Your task to perform on an android device: clear history in the chrome app Image 0: 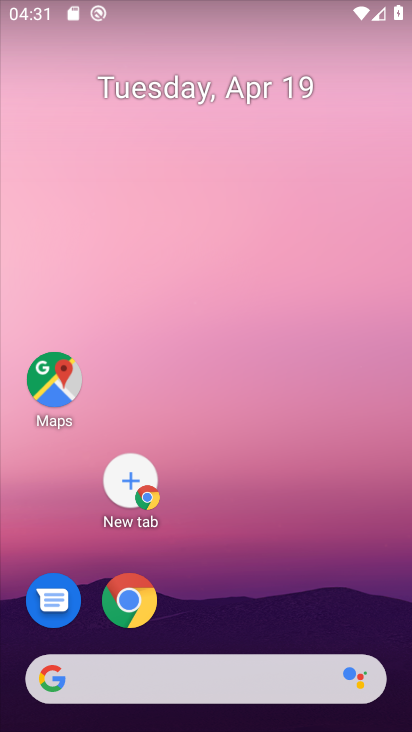
Step 0: click (135, 606)
Your task to perform on an android device: clear history in the chrome app Image 1: 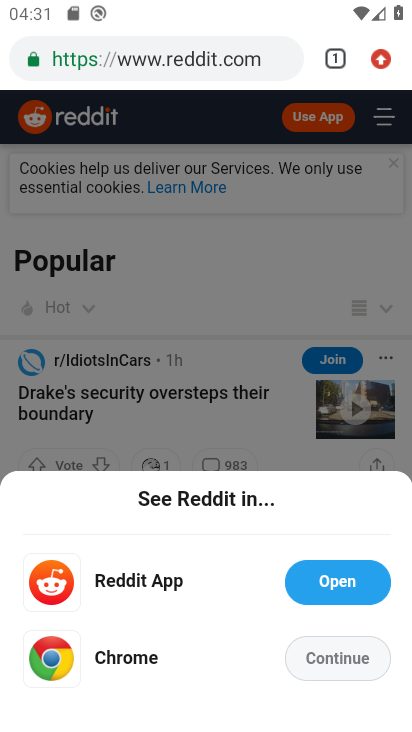
Step 1: click (393, 62)
Your task to perform on an android device: clear history in the chrome app Image 2: 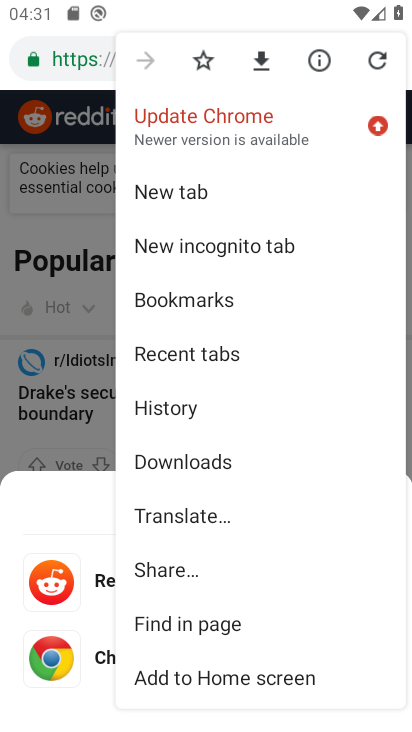
Step 2: click (194, 406)
Your task to perform on an android device: clear history in the chrome app Image 3: 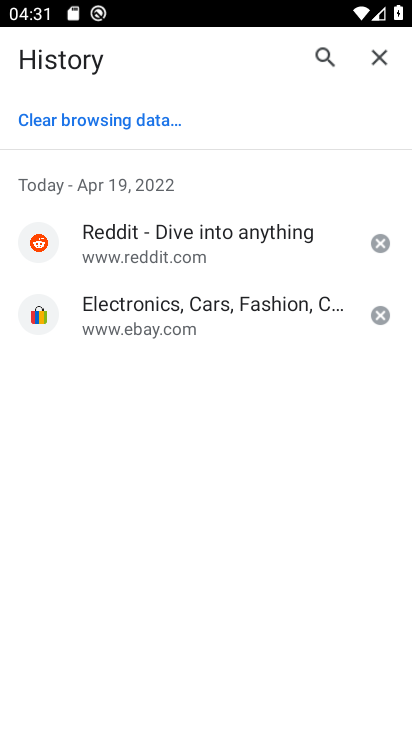
Step 3: click (89, 127)
Your task to perform on an android device: clear history in the chrome app Image 4: 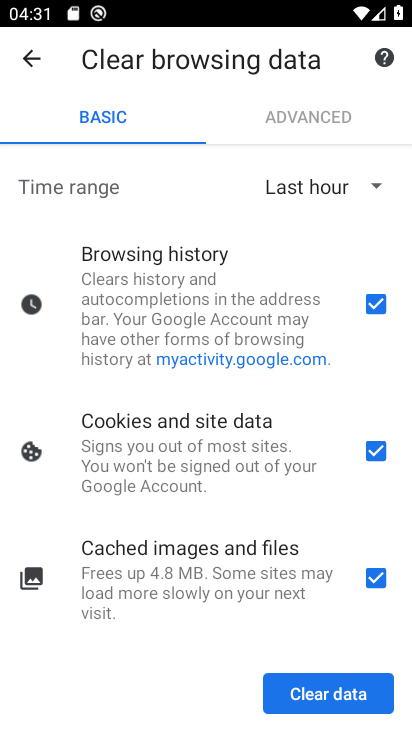
Step 4: click (306, 702)
Your task to perform on an android device: clear history in the chrome app Image 5: 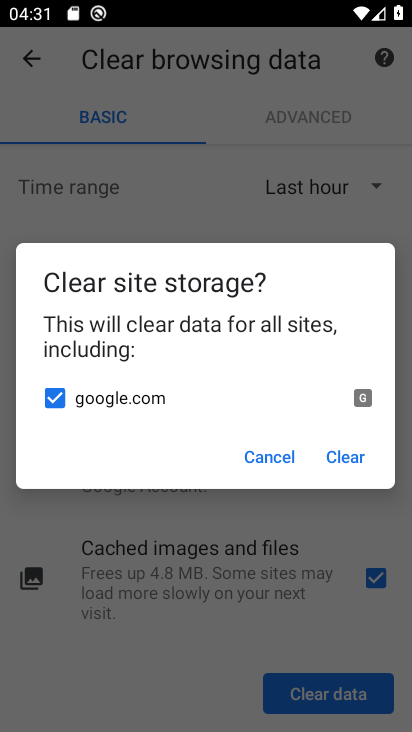
Step 5: click (344, 452)
Your task to perform on an android device: clear history in the chrome app Image 6: 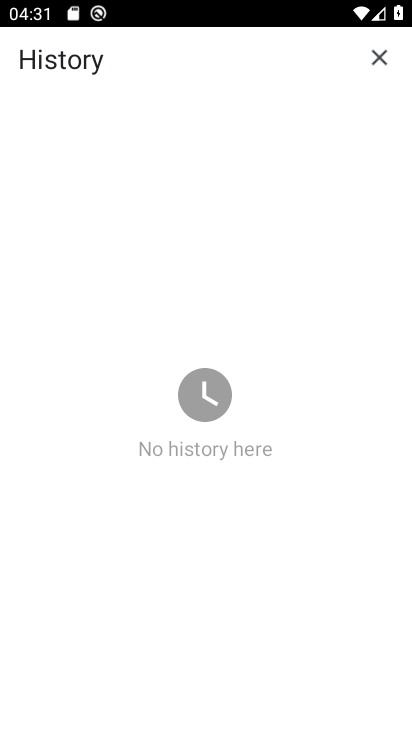
Step 6: task complete